Your task to perform on an android device: Open Yahoo.com Image 0: 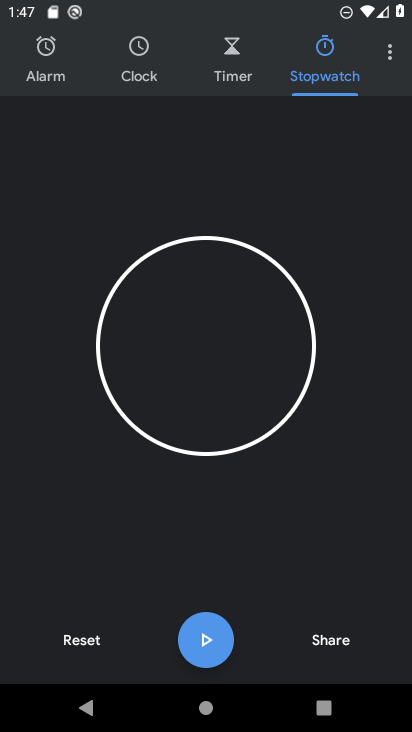
Step 0: press home button
Your task to perform on an android device: Open Yahoo.com Image 1: 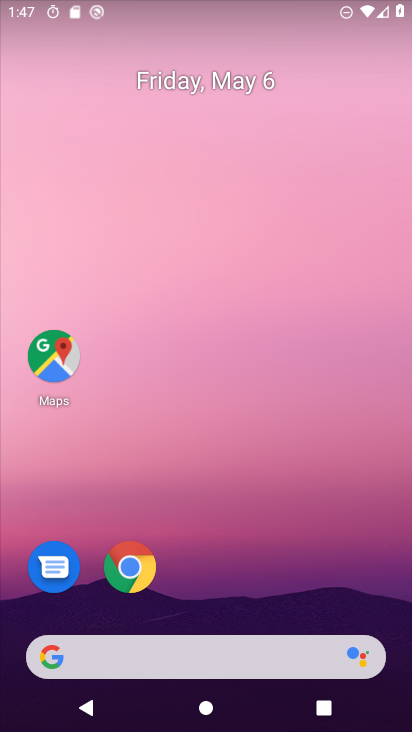
Step 1: drag from (266, 691) to (255, 150)
Your task to perform on an android device: Open Yahoo.com Image 2: 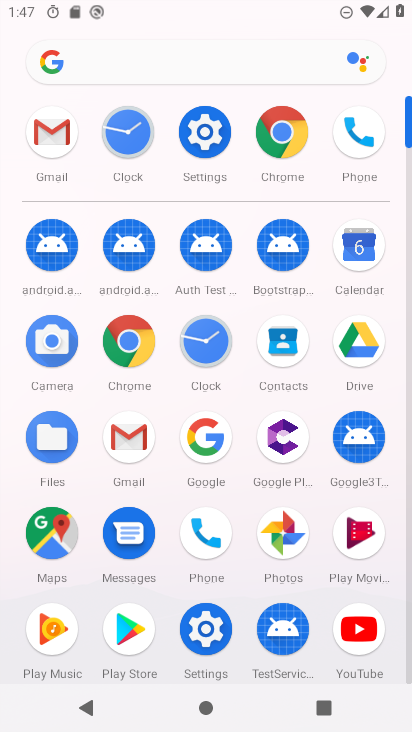
Step 2: click (290, 160)
Your task to perform on an android device: Open Yahoo.com Image 3: 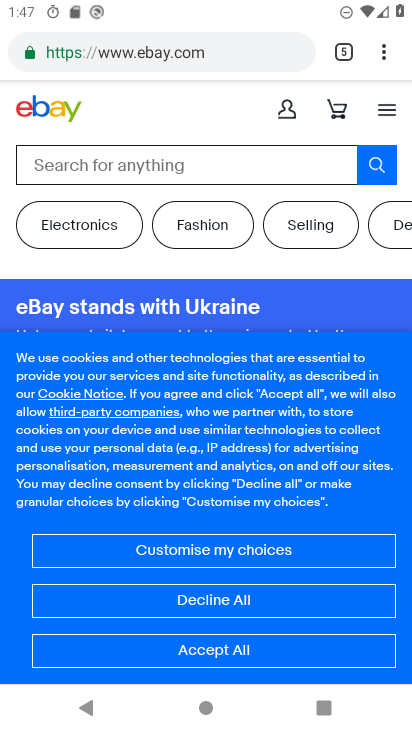
Step 3: click (337, 57)
Your task to perform on an android device: Open Yahoo.com Image 4: 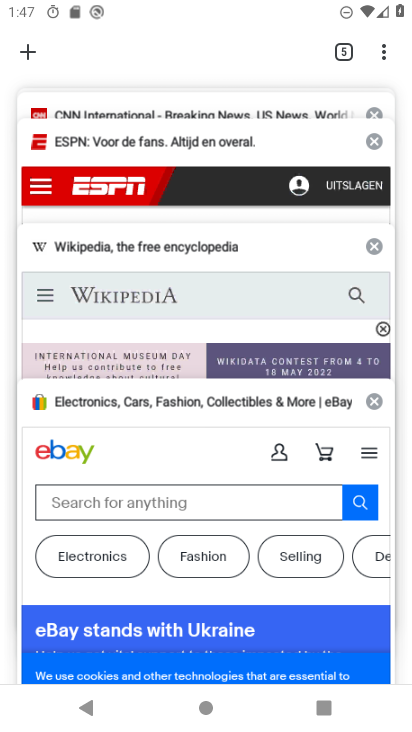
Step 4: click (27, 55)
Your task to perform on an android device: Open Yahoo.com Image 5: 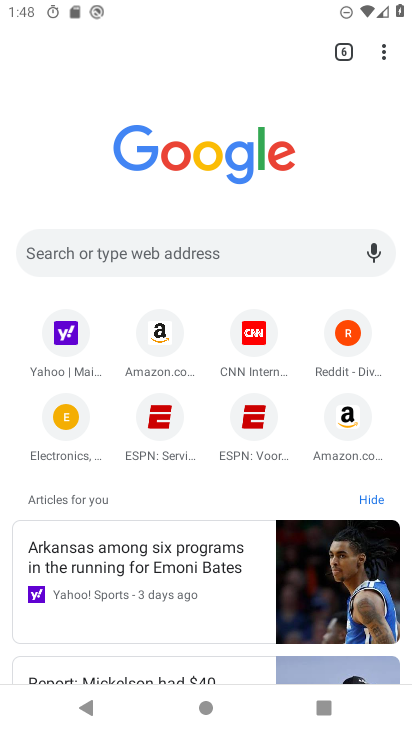
Step 5: click (129, 254)
Your task to perform on an android device: Open Yahoo.com Image 6: 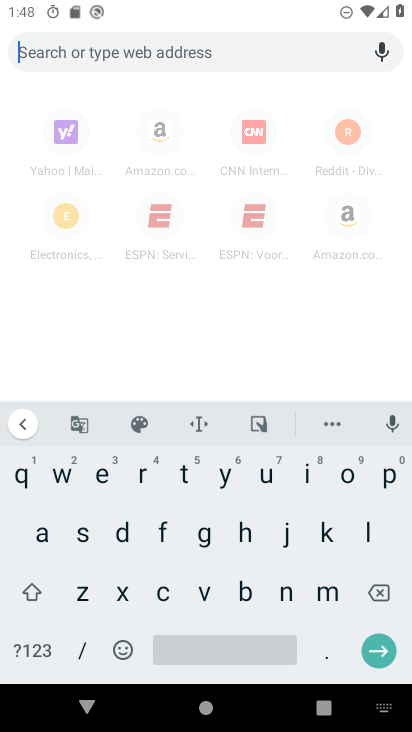
Step 6: click (224, 477)
Your task to perform on an android device: Open Yahoo.com Image 7: 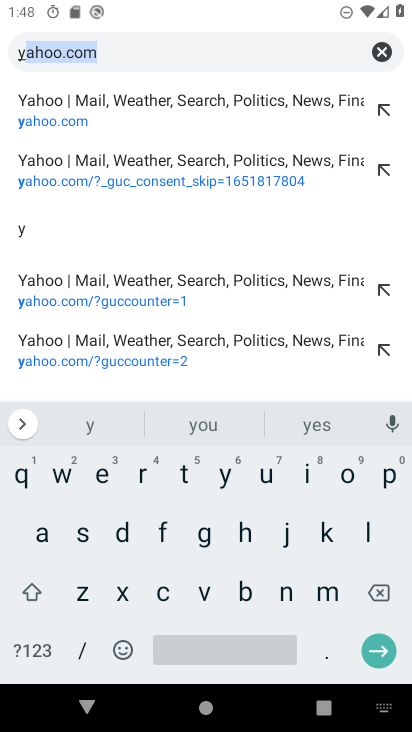
Step 7: click (146, 49)
Your task to perform on an android device: Open Yahoo.com Image 8: 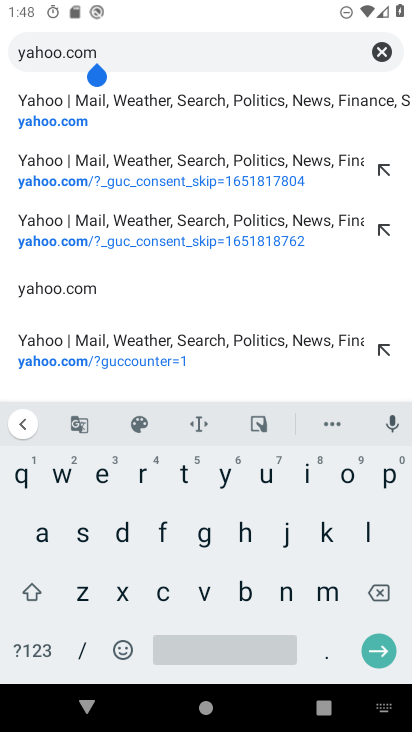
Step 8: click (379, 645)
Your task to perform on an android device: Open Yahoo.com Image 9: 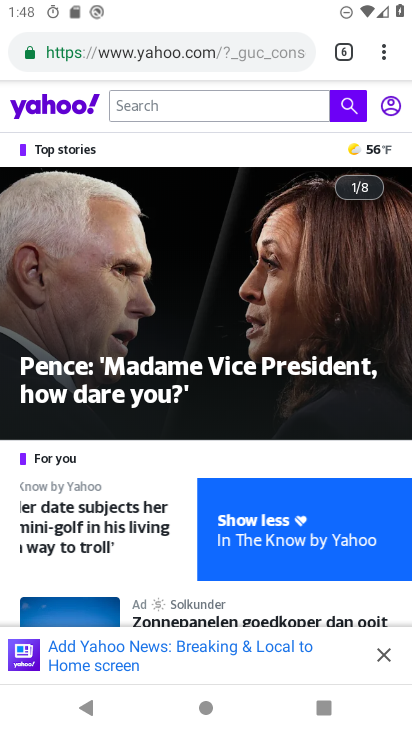
Step 9: task complete